Your task to perform on an android device: Go to calendar. Show me events next week Image 0: 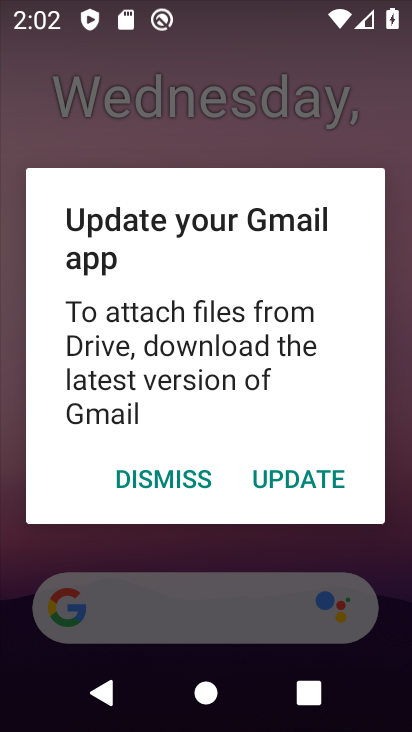
Step 0: press home button
Your task to perform on an android device: Go to calendar. Show me events next week Image 1: 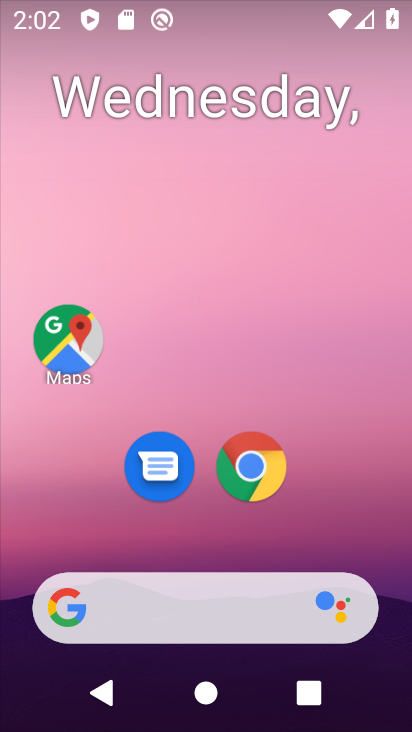
Step 1: drag from (339, 515) to (282, 49)
Your task to perform on an android device: Go to calendar. Show me events next week Image 2: 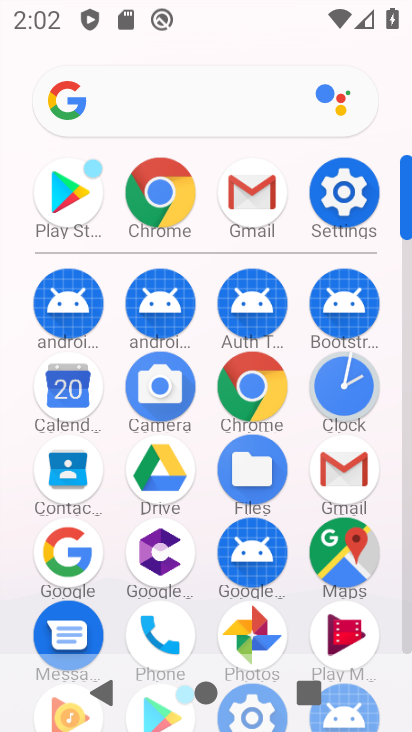
Step 2: click (63, 387)
Your task to perform on an android device: Go to calendar. Show me events next week Image 3: 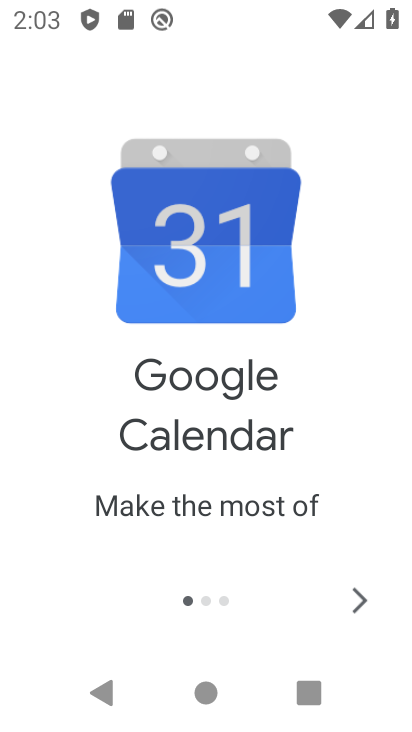
Step 3: click (357, 603)
Your task to perform on an android device: Go to calendar. Show me events next week Image 4: 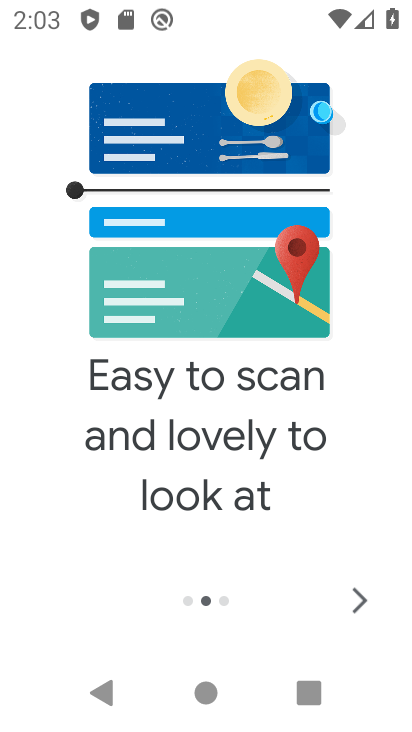
Step 4: click (357, 603)
Your task to perform on an android device: Go to calendar. Show me events next week Image 5: 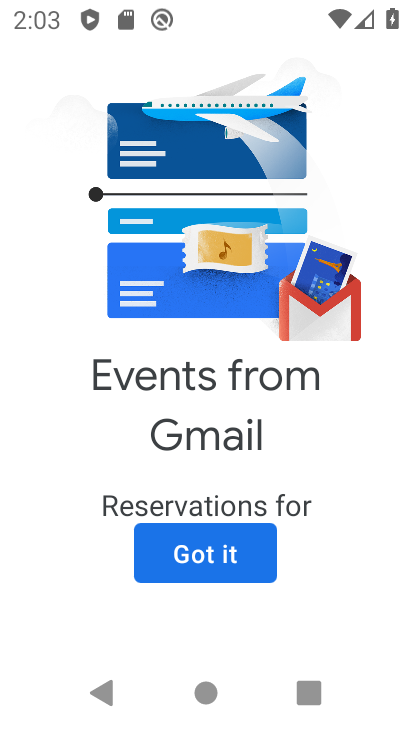
Step 5: click (231, 562)
Your task to perform on an android device: Go to calendar. Show me events next week Image 6: 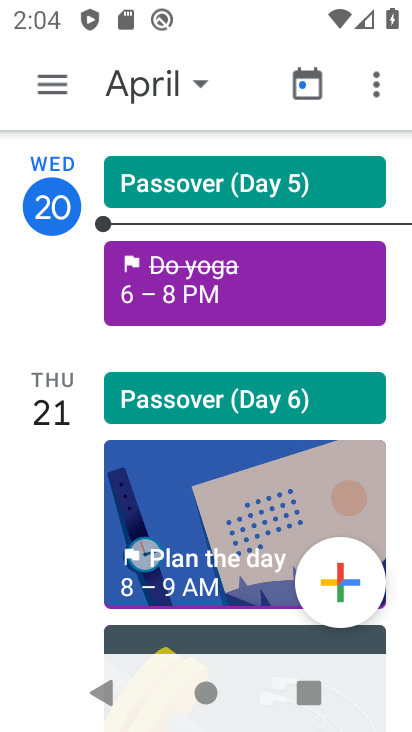
Step 6: click (130, 75)
Your task to perform on an android device: Go to calendar. Show me events next week Image 7: 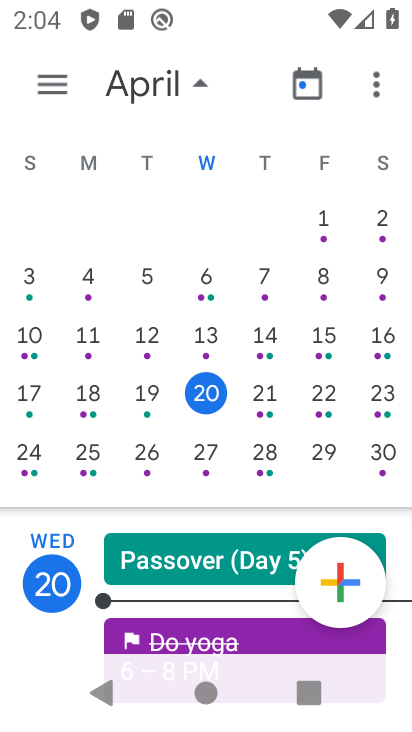
Step 7: click (35, 456)
Your task to perform on an android device: Go to calendar. Show me events next week Image 8: 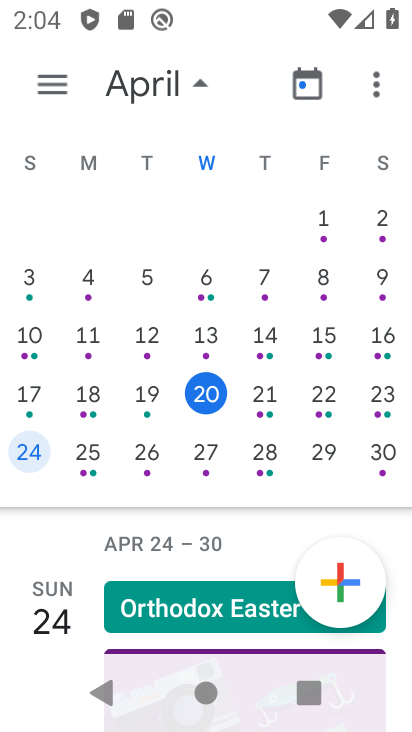
Step 8: click (54, 73)
Your task to perform on an android device: Go to calendar. Show me events next week Image 9: 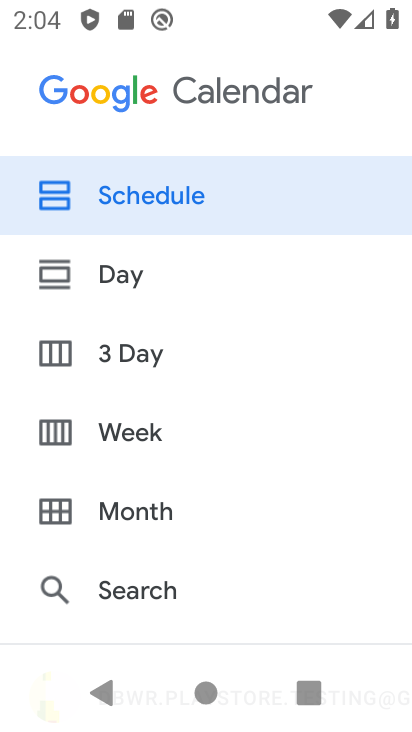
Step 9: click (150, 431)
Your task to perform on an android device: Go to calendar. Show me events next week Image 10: 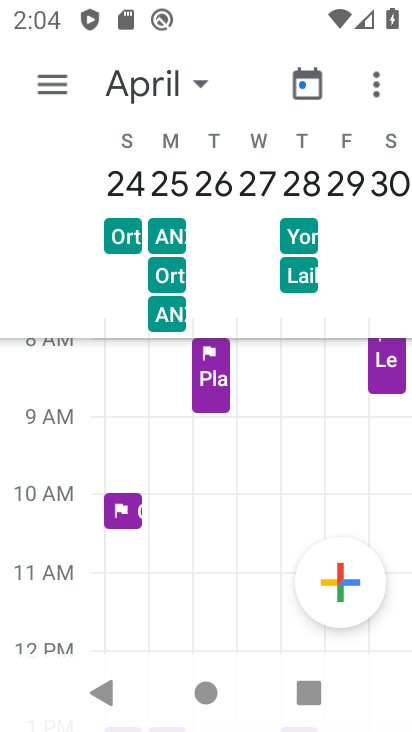
Step 10: task complete